Your task to perform on an android device: Go to Yahoo.com Image 0: 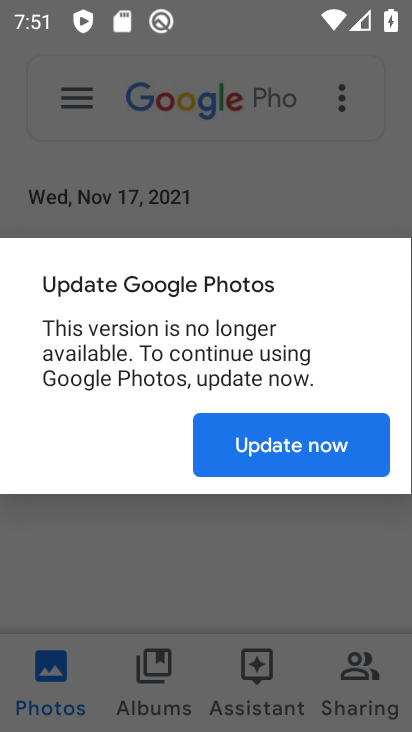
Step 0: press home button
Your task to perform on an android device: Go to Yahoo.com Image 1: 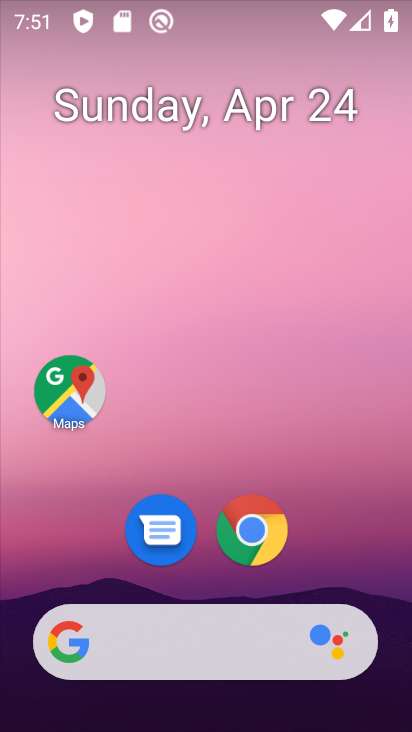
Step 1: drag from (212, 576) to (184, 214)
Your task to perform on an android device: Go to Yahoo.com Image 2: 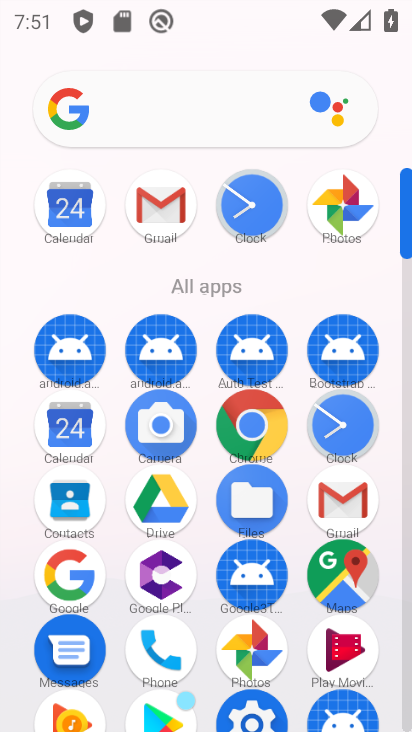
Step 2: click (247, 427)
Your task to perform on an android device: Go to Yahoo.com Image 3: 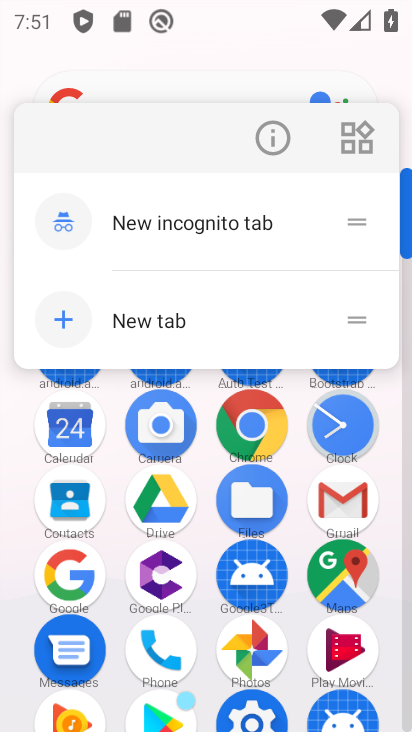
Step 3: click (180, 325)
Your task to perform on an android device: Go to Yahoo.com Image 4: 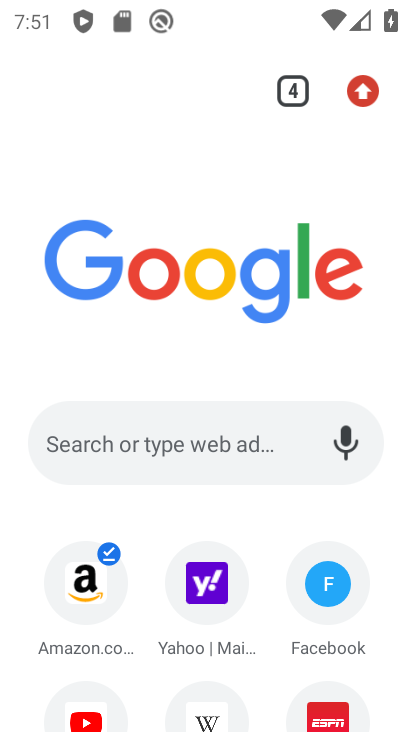
Step 4: click (208, 601)
Your task to perform on an android device: Go to Yahoo.com Image 5: 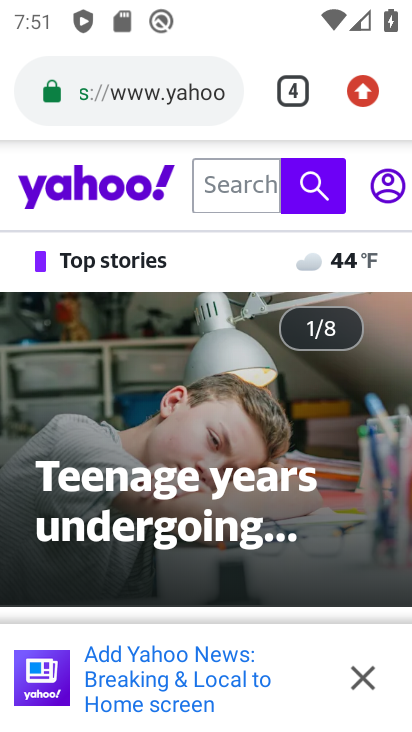
Step 5: task complete